Your task to perform on an android device: Open Chrome and go to settings Image 0: 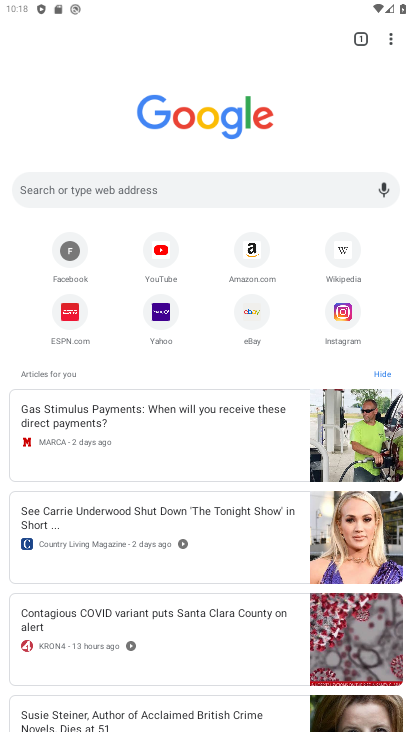
Step 0: click (394, 39)
Your task to perform on an android device: Open Chrome and go to settings Image 1: 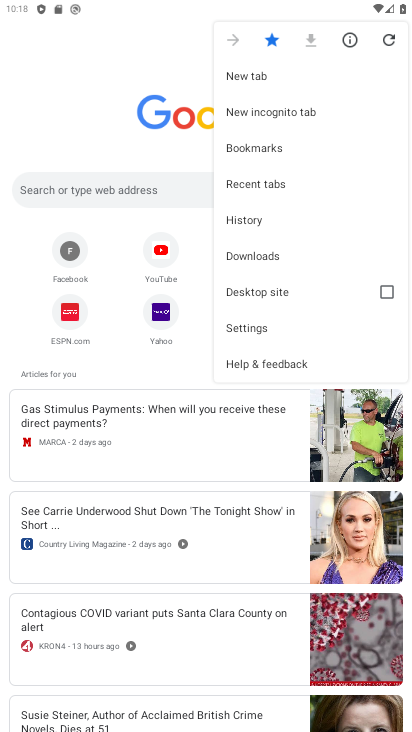
Step 1: click (272, 324)
Your task to perform on an android device: Open Chrome and go to settings Image 2: 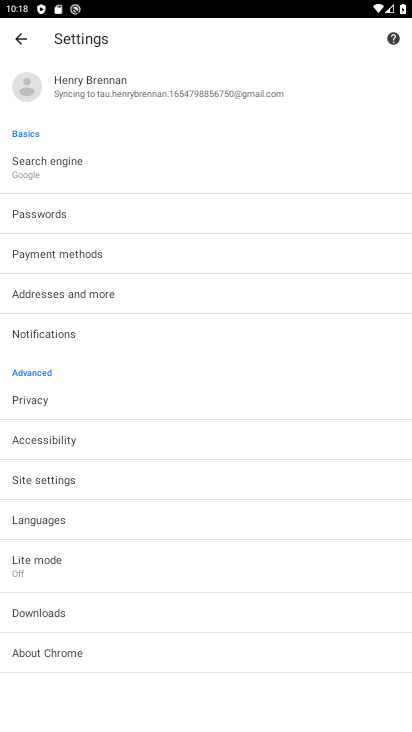
Step 2: task complete